Your task to perform on an android device: turn on data saver in the chrome app Image 0: 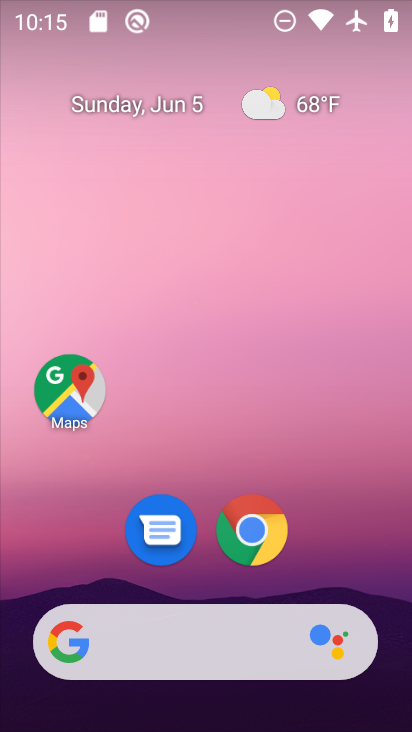
Step 0: click (250, 533)
Your task to perform on an android device: turn on data saver in the chrome app Image 1: 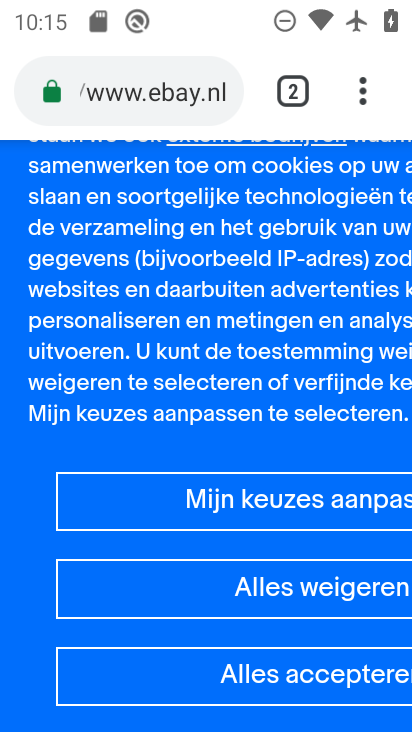
Step 1: click (361, 101)
Your task to perform on an android device: turn on data saver in the chrome app Image 2: 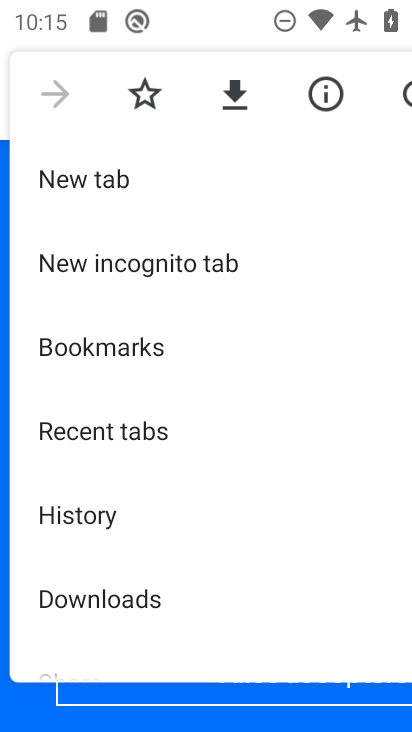
Step 2: drag from (223, 593) to (220, 85)
Your task to perform on an android device: turn on data saver in the chrome app Image 3: 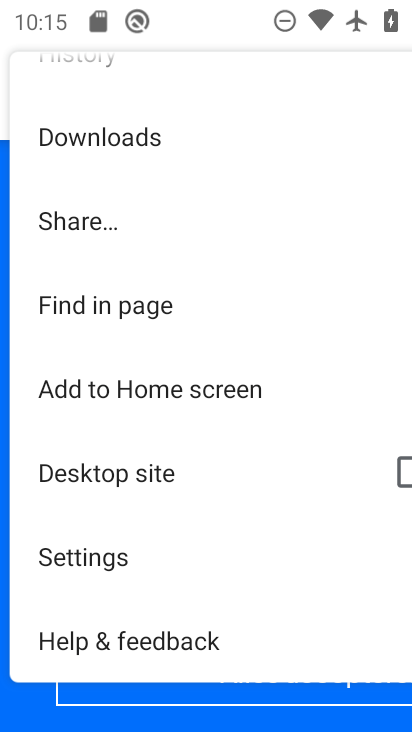
Step 3: click (74, 539)
Your task to perform on an android device: turn on data saver in the chrome app Image 4: 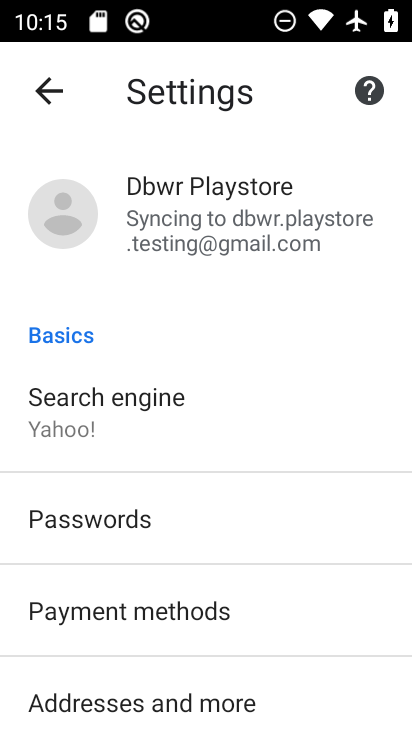
Step 4: drag from (293, 675) to (219, 244)
Your task to perform on an android device: turn on data saver in the chrome app Image 5: 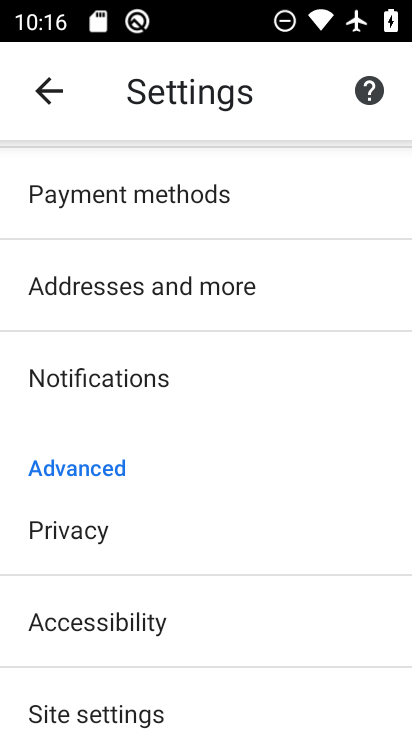
Step 5: drag from (197, 630) to (188, 297)
Your task to perform on an android device: turn on data saver in the chrome app Image 6: 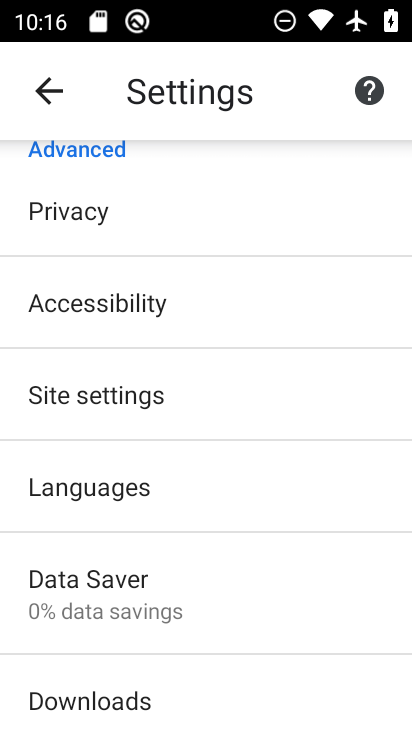
Step 6: click (109, 588)
Your task to perform on an android device: turn on data saver in the chrome app Image 7: 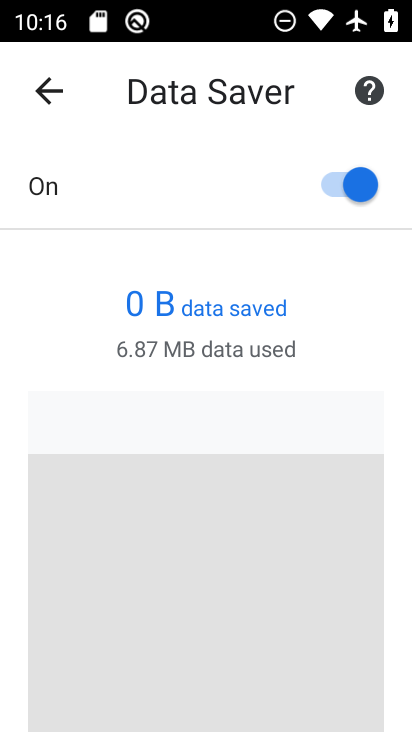
Step 7: task complete